Your task to perform on an android device: Search for seafood restaurants on Google Maps Image 0: 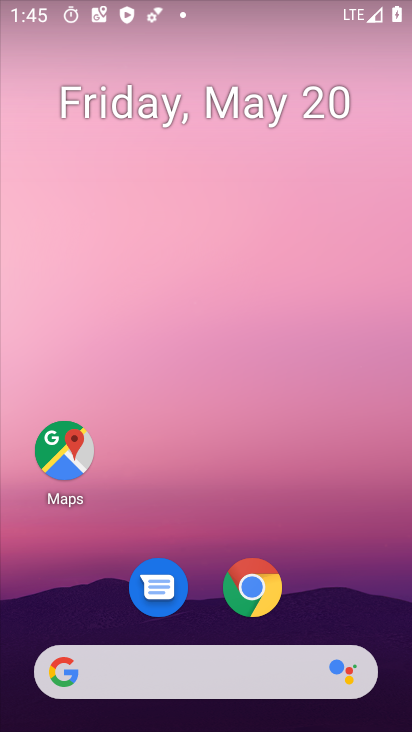
Step 0: click (68, 450)
Your task to perform on an android device: Search for seafood restaurants on Google Maps Image 1: 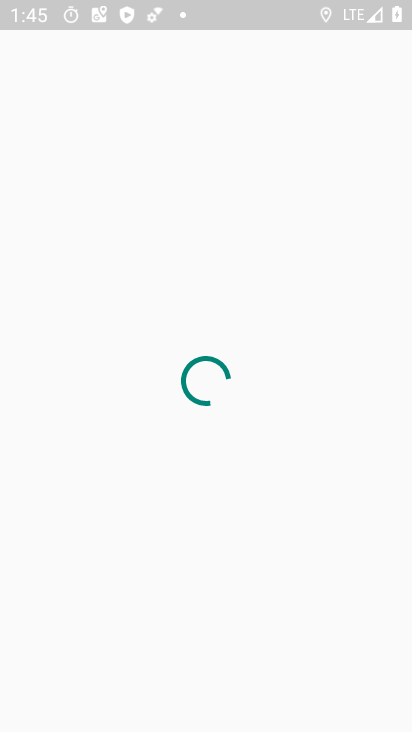
Step 1: task complete